Your task to perform on an android device: Open calendar and show me the fourth week of next month Image 0: 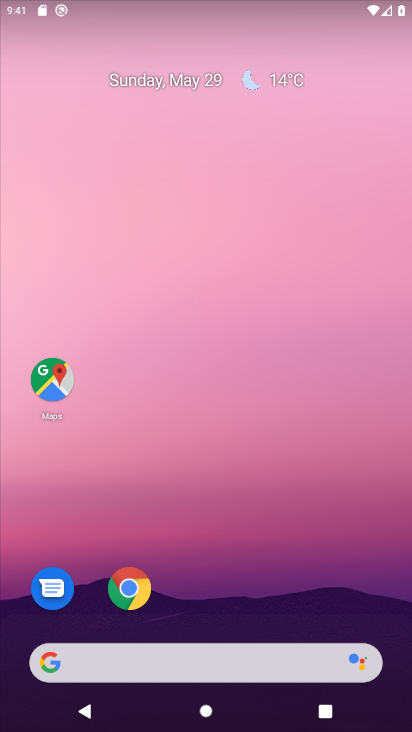
Step 0: drag from (152, 410) to (103, 100)
Your task to perform on an android device: Open calendar and show me the fourth week of next month Image 1: 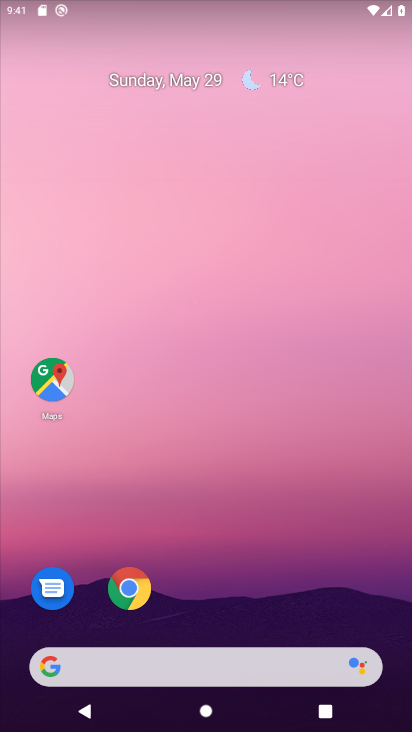
Step 1: drag from (251, 571) to (210, 103)
Your task to perform on an android device: Open calendar and show me the fourth week of next month Image 2: 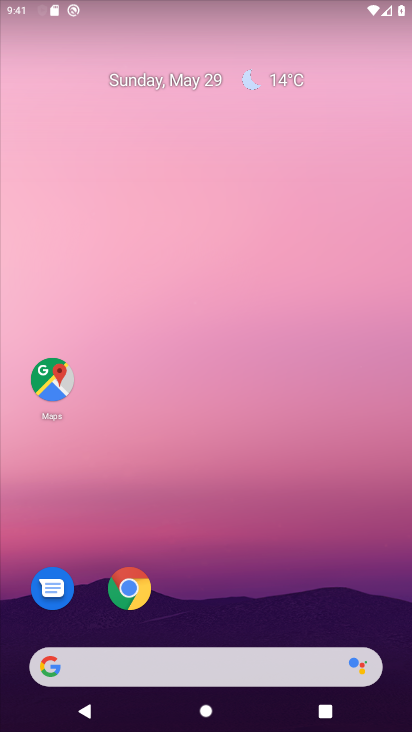
Step 2: drag from (270, 697) to (252, 118)
Your task to perform on an android device: Open calendar and show me the fourth week of next month Image 3: 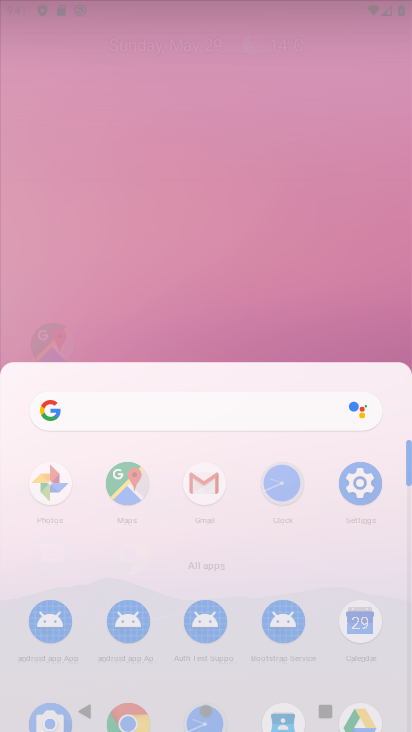
Step 3: drag from (212, 324) to (185, 147)
Your task to perform on an android device: Open calendar and show me the fourth week of next month Image 4: 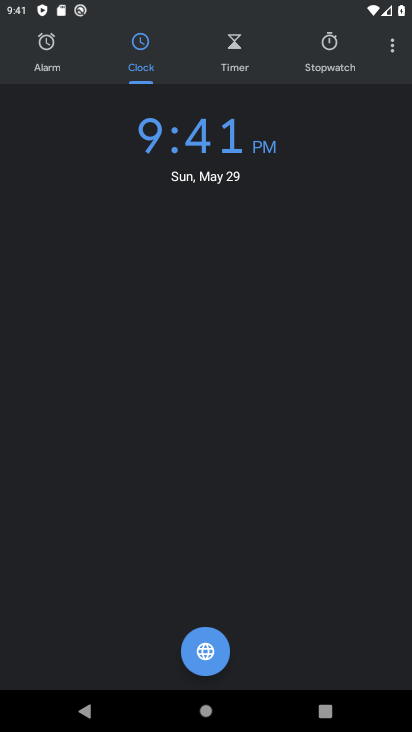
Step 4: press back button
Your task to perform on an android device: Open calendar and show me the fourth week of next month Image 5: 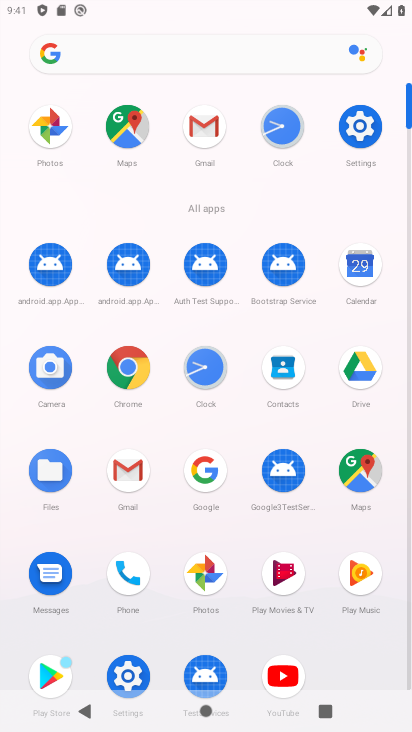
Step 5: click (357, 266)
Your task to perform on an android device: Open calendar and show me the fourth week of next month Image 6: 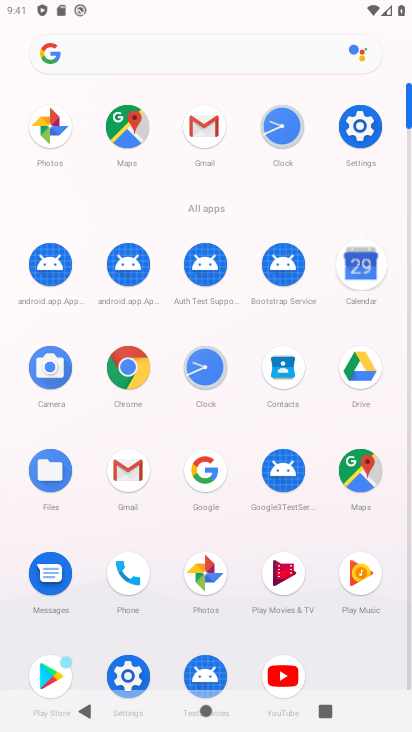
Step 6: click (355, 264)
Your task to perform on an android device: Open calendar and show me the fourth week of next month Image 7: 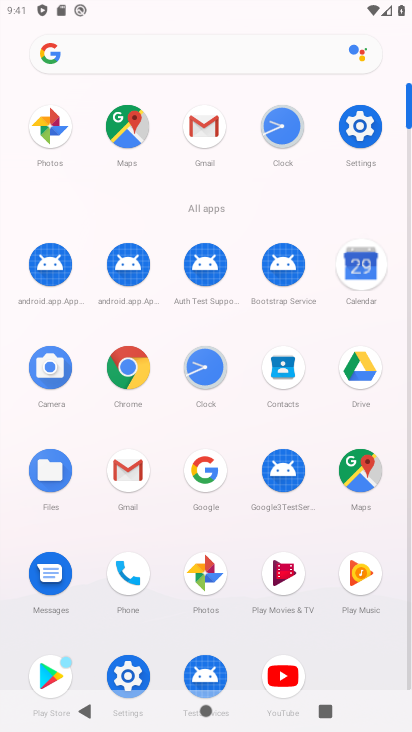
Step 7: click (342, 261)
Your task to perform on an android device: Open calendar and show me the fourth week of next month Image 8: 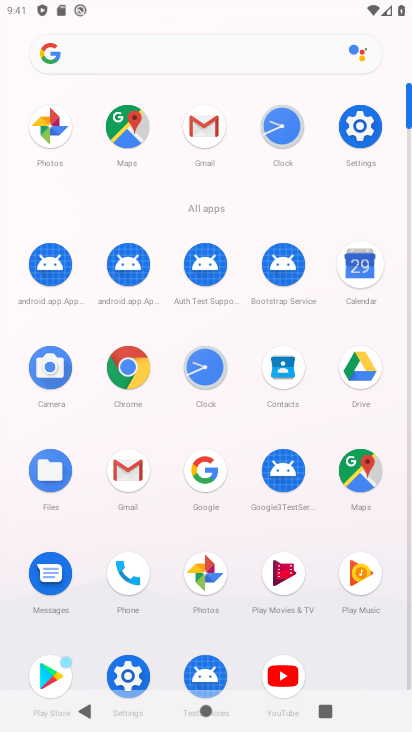
Step 8: click (354, 260)
Your task to perform on an android device: Open calendar and show me the fourth week of next month Image 9: 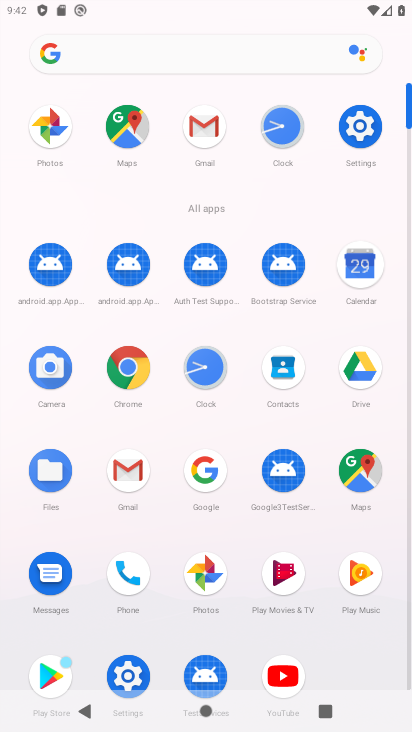
Step 9: click (354, 268)
Your task to perform on an android device: Open calendar and show me the fourth week of next month Image 10: 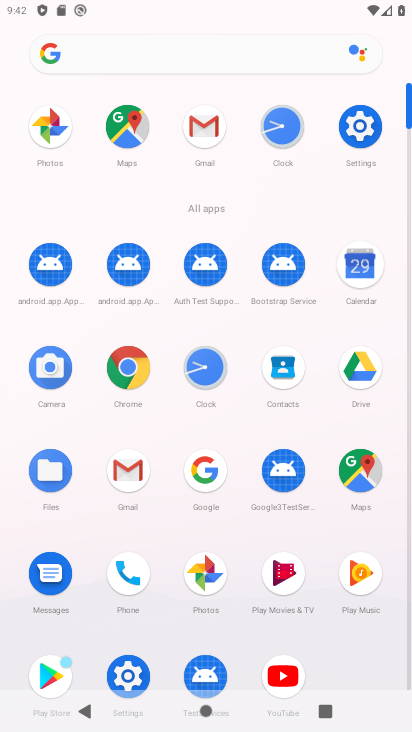
Step 10: click (354, 268)
Your task to perform on an android device: Open calendar and show me the fourth week of next month Image 11: 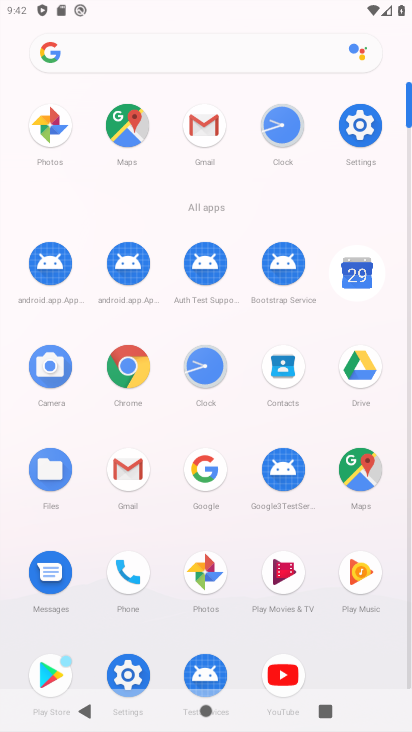
Step 11: click (355, 268)
Your task to perform on an android device: Open calendar and show me the fourth week of next month Image 12: 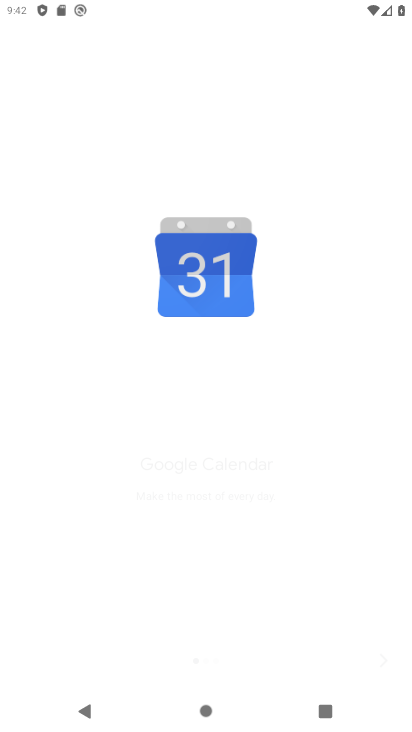
Step 12: click (355, 271)
Your task to perform on an android device: Open calendar and show me the fourth week of next month Image 13: 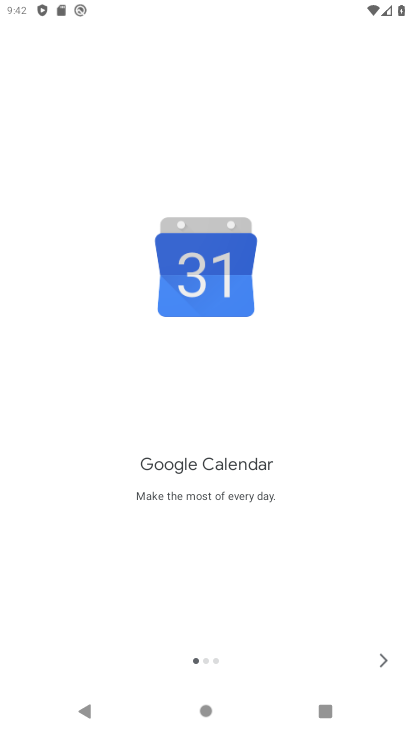
Step 13: click (388, 663)
Your task to perform on an android device: Open calendar and show me the fourth week of next month Image 14: 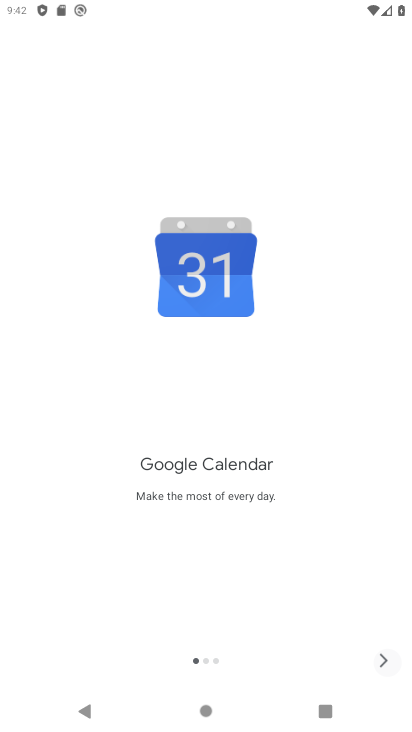
Step 14: click (387, 661)
Your task to perform on an android device: Open calendar and show me the fourth week of next month Image 15: 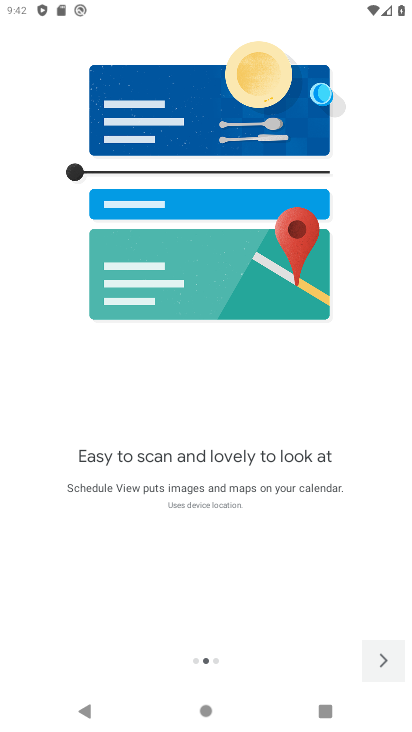
Step 15: click (386, 660)
Your task to perform on an android device: Open calendar and show me the fourth week of next month Image 16: 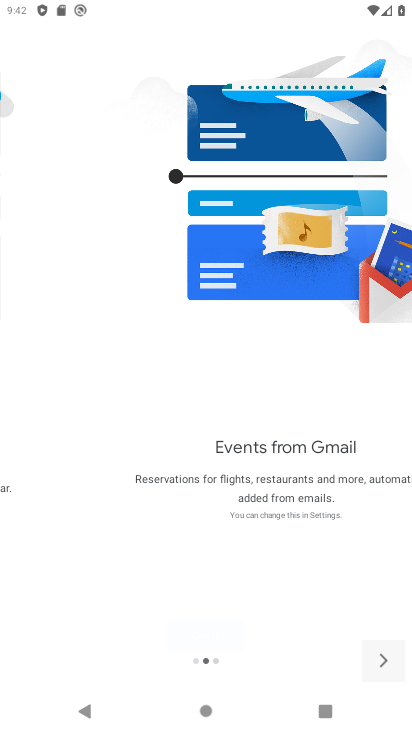
Step 16: click (385, 659)
Your task to perform on an android device: Open calendar and show me the fourth week of next month Image 17: 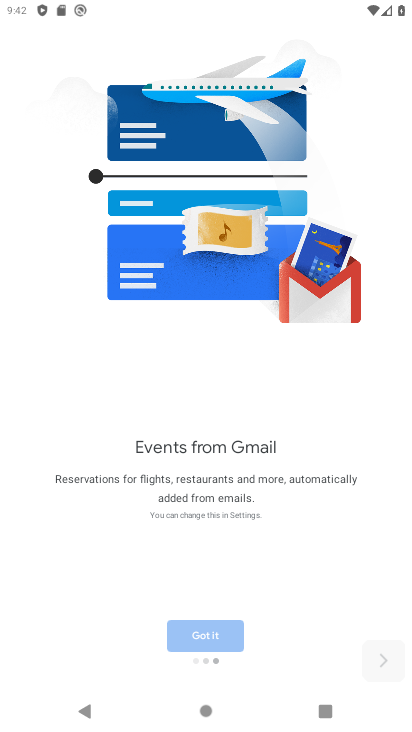
Step 17: click (381, 658)
Your task to perform on an android device: Open calendar and show me the fourth week of next month Image 18: 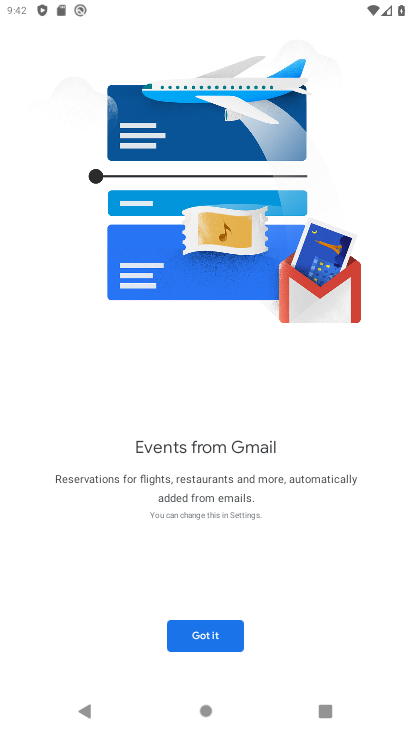
Step 18: click (374, 658)
Your task to perform on an android device: Open calendar and show me the fourth week of next month Image 19: 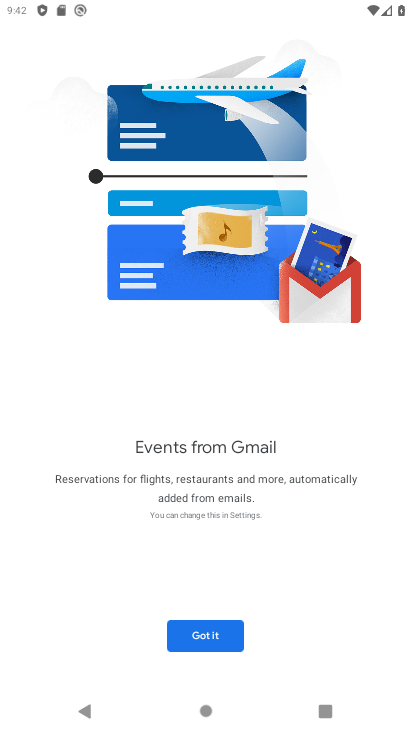
Step 19: click (210, 649)
Your task to perform on an android device: Open calendar and show me the fourth week of next month Image 20: 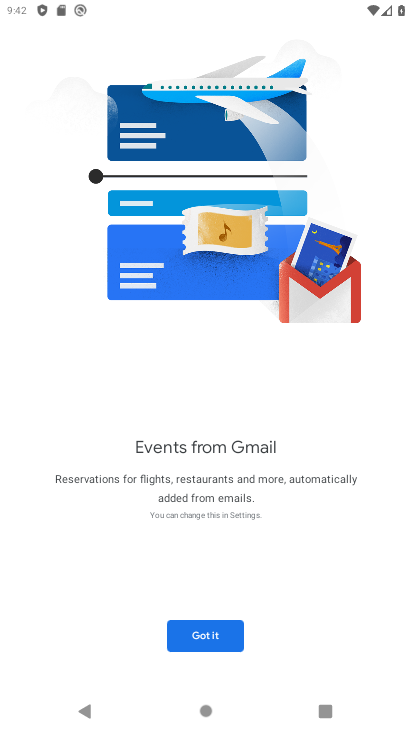
Step 20: click (210, 646)
Your task to perform on an android device: Open calendar and show me the fourth week of next month Image 21: 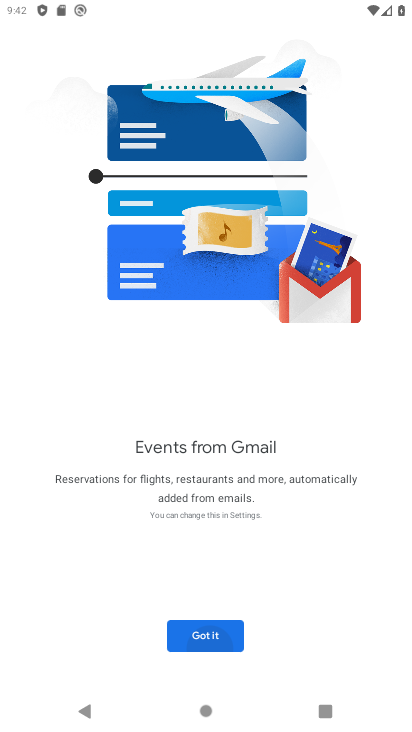
Step 21: click (212, 644)
Your task to perform on an android device: Open calendar and show me the fourth week of next month Image 22: 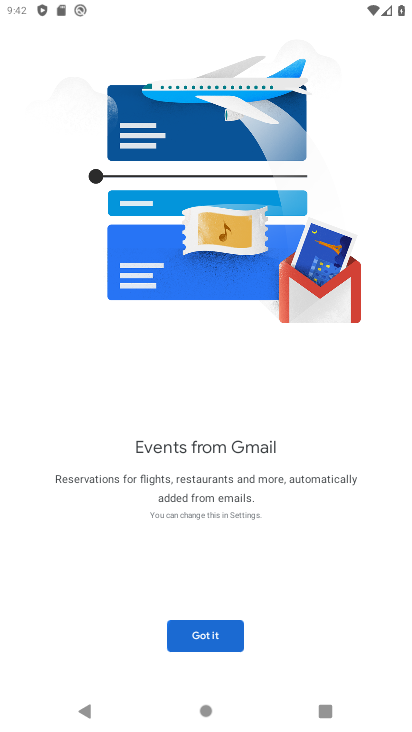
Step 22: click (214, 642)
Your task to perform on an android device: Open calendar and show me the fourth week of next month Image 23: 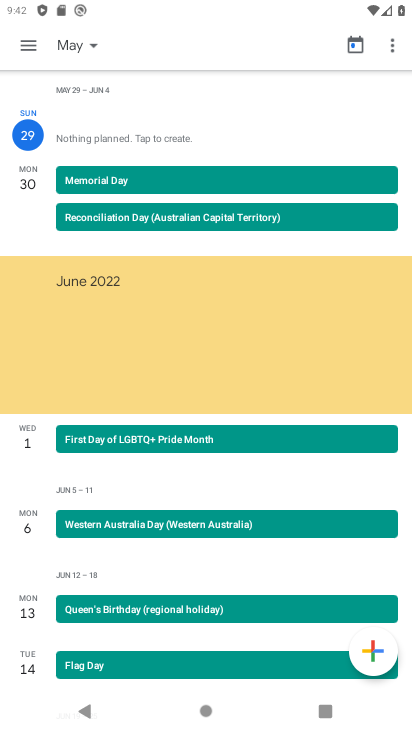
Step 23: click (102, 47)
Your task to perform on an android device: Open calendar and show me the fourth week of next month Image 24: 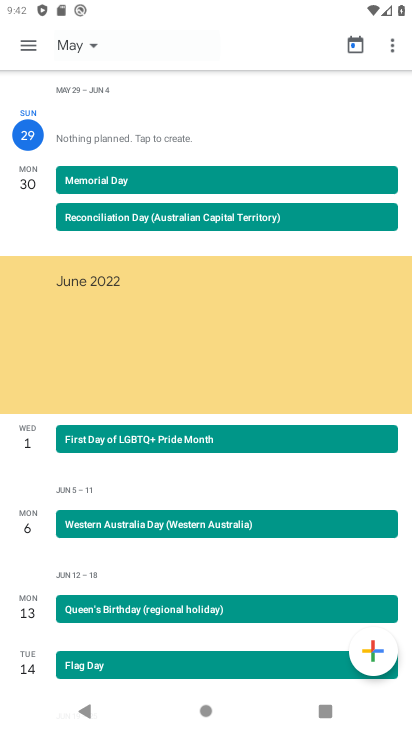
Step 24: click (102, 47)
Your task to perform on an android device: Open calendar and show me the fourth week of next month Image 25: 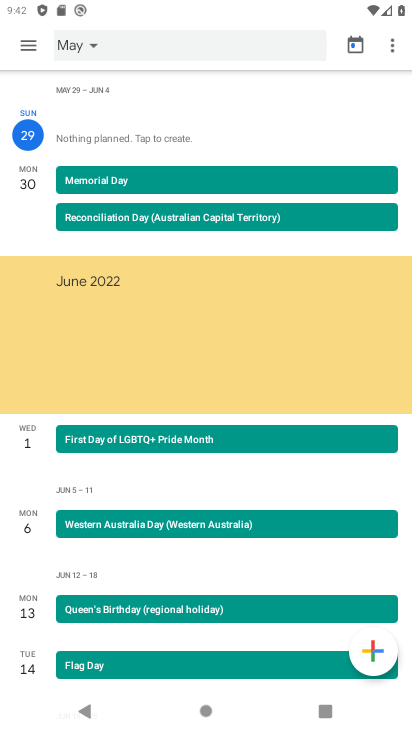
Step 25: click (102, 47)
Your task to perform on an android device: Open calendar and show me the fourth week of next month Image 26: 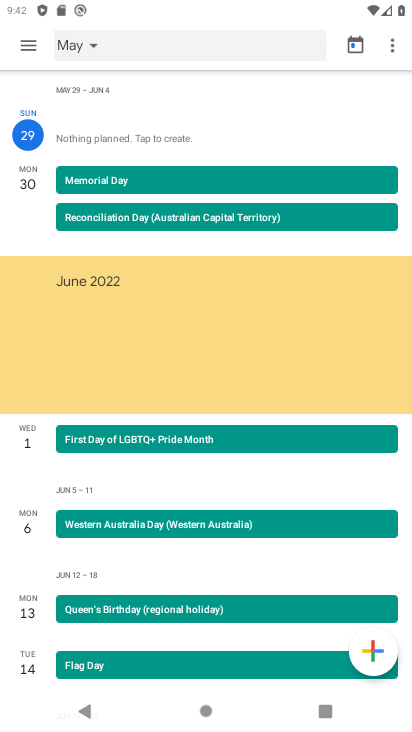
Step 26: click (102, 47)
Your task to perform on an android device: Open calendar and show me the fourth week of next month Image 27: 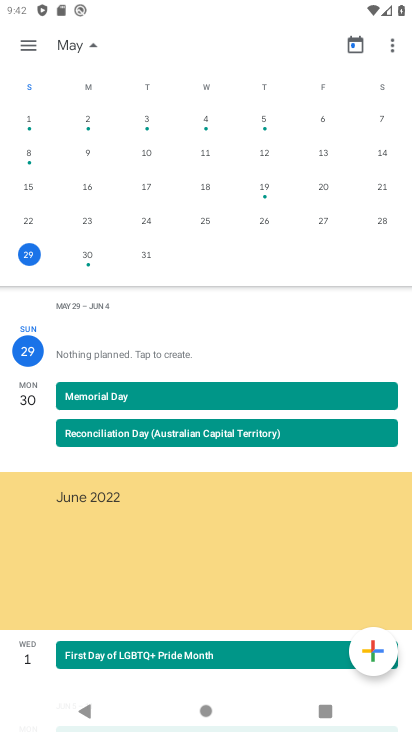
Step 27: click (102, 46)
Your task to perform on an android device: Open calendar and show me the fourth week of next month Image 28: 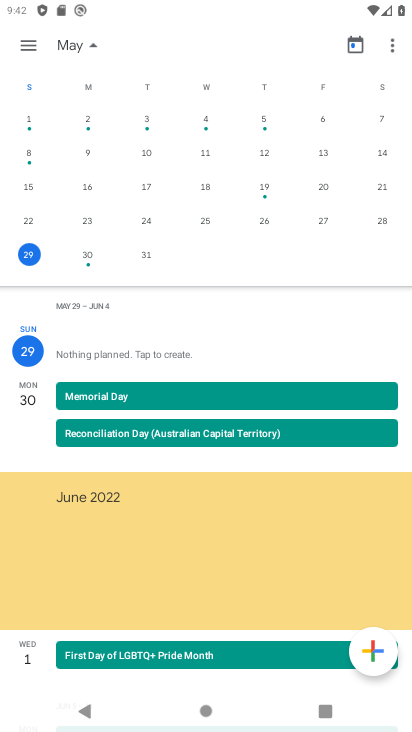
Step 28: drag from (188, 187) to (21, 198)
Your task to perform on an android device: Open calendar and show me the fourth week of next month Image 29: 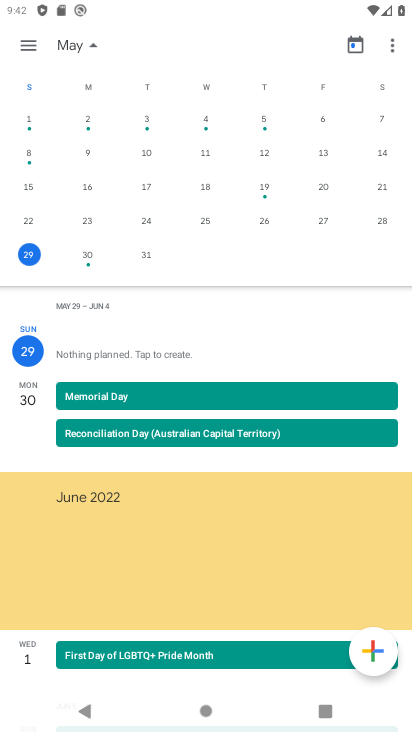
Step 29: click (12, 230)
Your task to perform on an android device: Open calendar and show me the fourth week of next month Image 30: 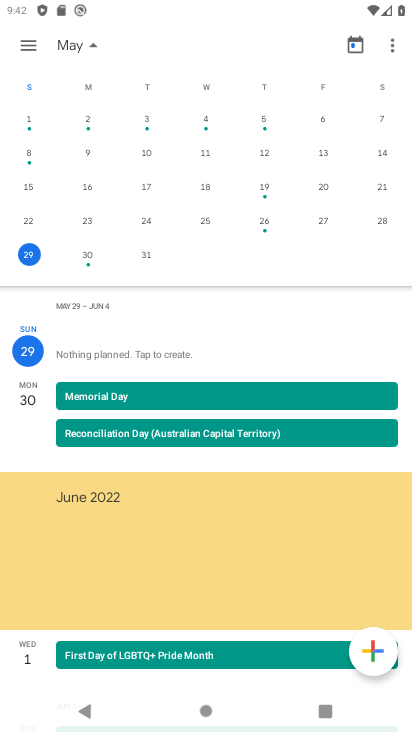
Step 30: drag from (100, 246) to (41, 181)
Your task to perform on an android device: Open calendar and show me the fourth week of next month Image 31: 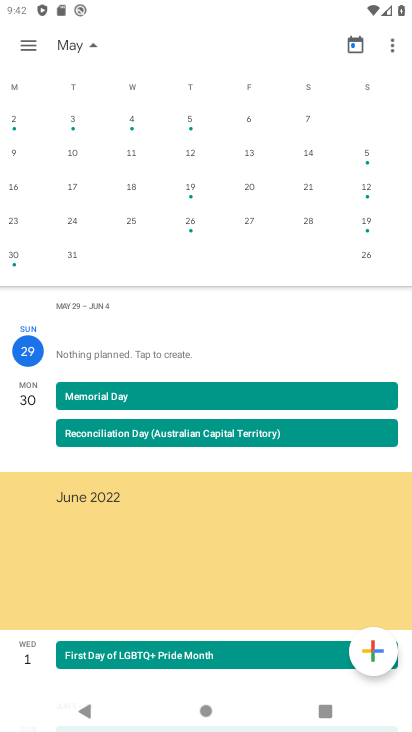
Step 31: drag from (126, 159) to (5, 152)
Your task to perform on an android device: Open calendar and show me the fourth week of next month Image 32: 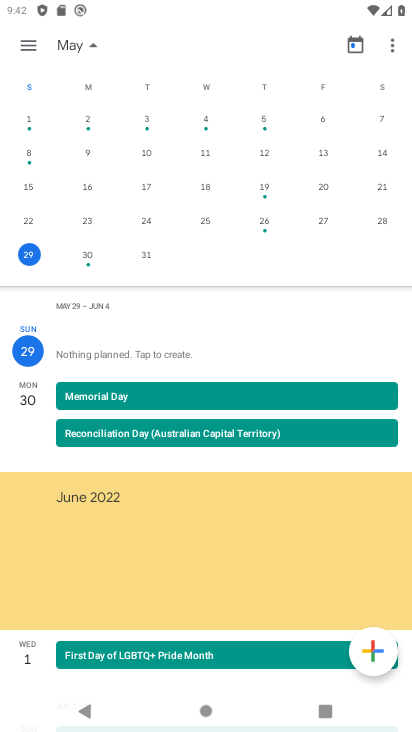
Step 32: drag from (64, 191) to (7, 184)
Your task to perform on an android device: Open calendar and show me the fourth week of next month Image 33: 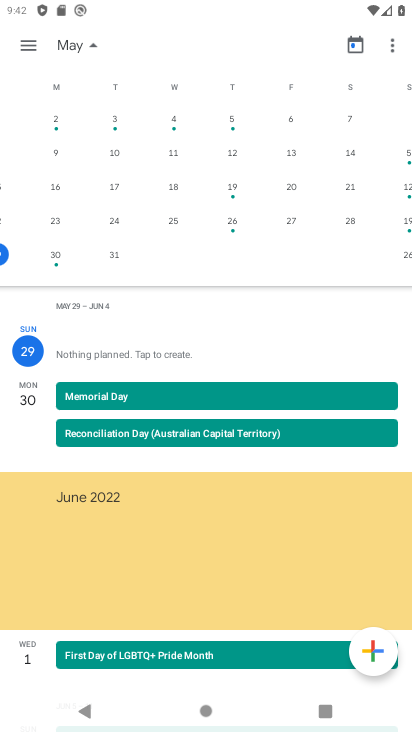
Step 33: drag from (166, 153) to (19, 142)
Your task to perform on an android device: Open calendar and show me the fourth week of next month Image 34: 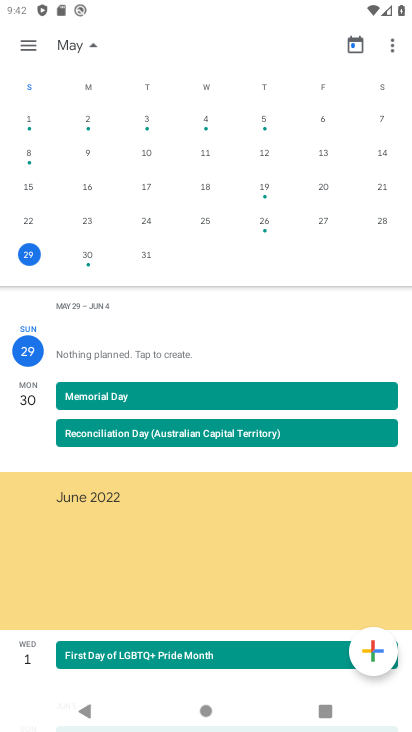
Step 34: click (221, 194)
Your task to perform on an android device: Open calendar and show me the fourth week of next month Image 35: 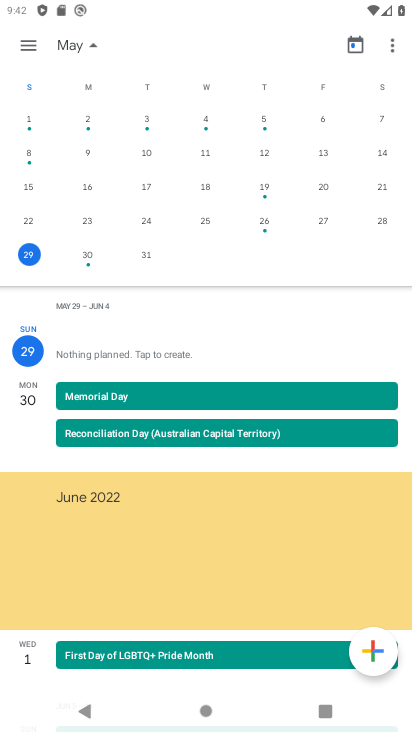
Step 35: drag from (312, 175) to (7, 155)
Your task to perform on an android device: Open calendar and show me the fourth week of next month Image 36: 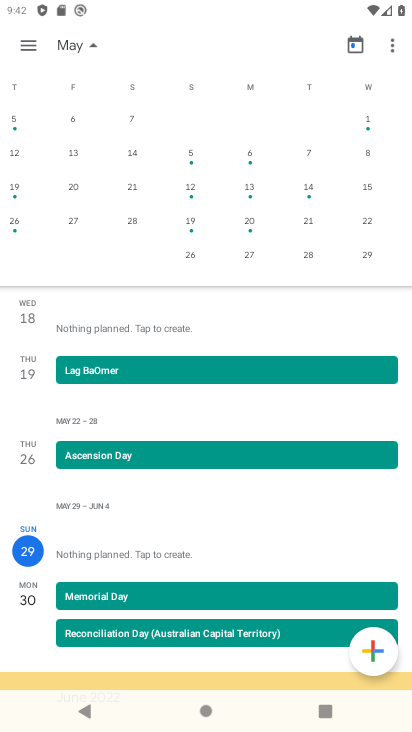
Step 36: drag from (172, 144) to (31, 270)
Your task to perform on an android device: Open calendar and show me the fourth week of next month Image 37: 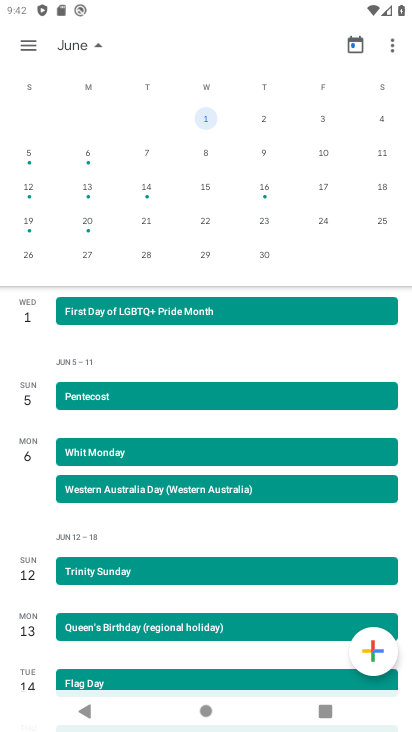
Step 37: drag from (198, 221) to (34, 273)
Your task to perform on an android device: Open calendar and show me the fourth week of next month Image 38: 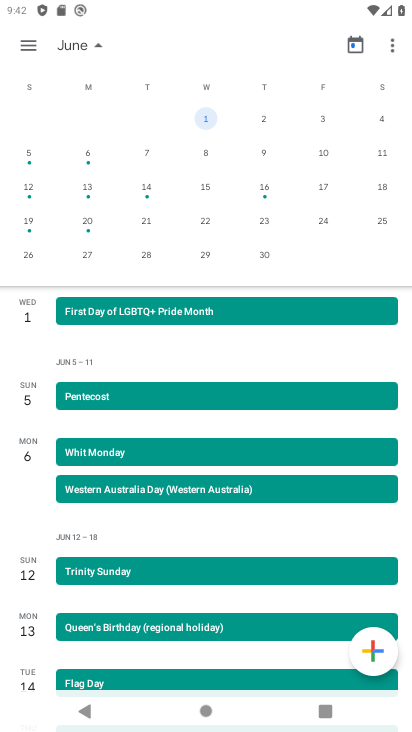
Step 38: drag from (294, 210) to (25, 257)
Your task to perform on an android device: Open calendar and show me the fourth week of next month Image 39: 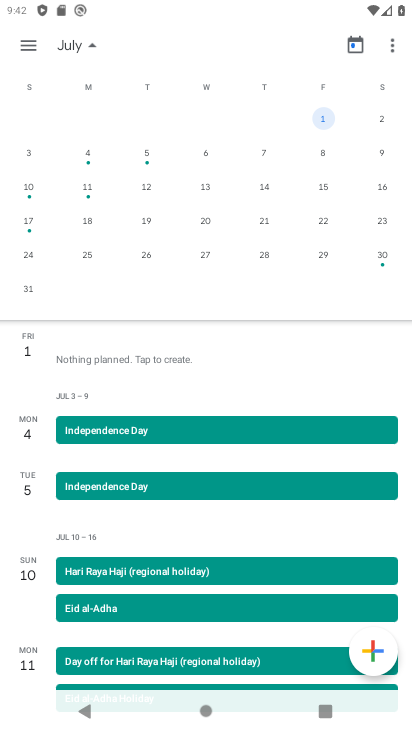
Step 39: drag from (105, 180) to (400, 253)
Your task to perform on an android device: Open calendar and show me the fourth week of next month Image 40: 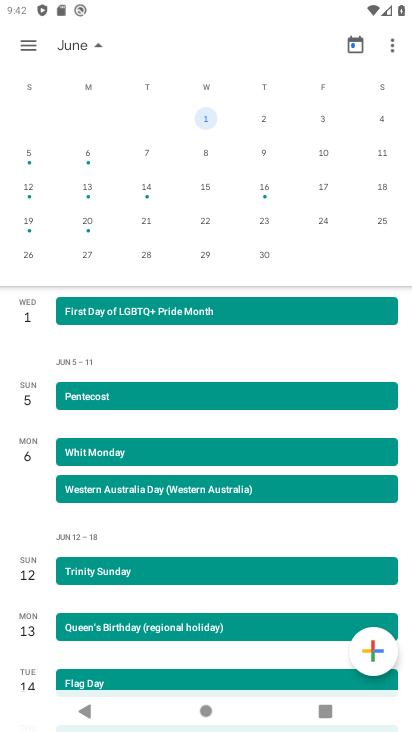
Step 40: click (204, 216)
Your task to perform on an android device: Open calendar and show me the fourth week of next month Image 41: 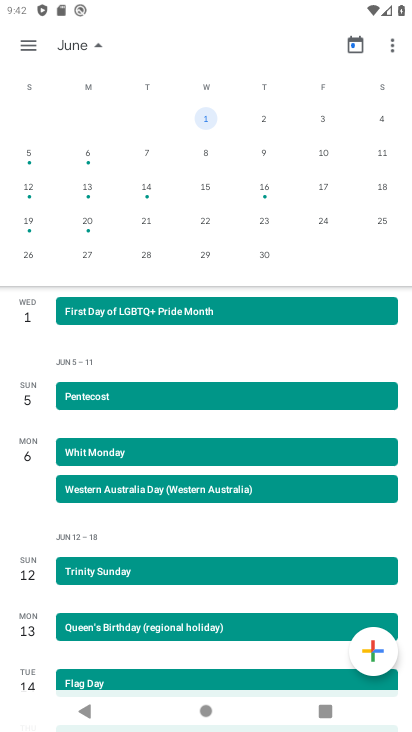
Step 41: click (204, 216)
Your task to perform on an android device: Open calendar and show me the fourth week of next month Image 42: 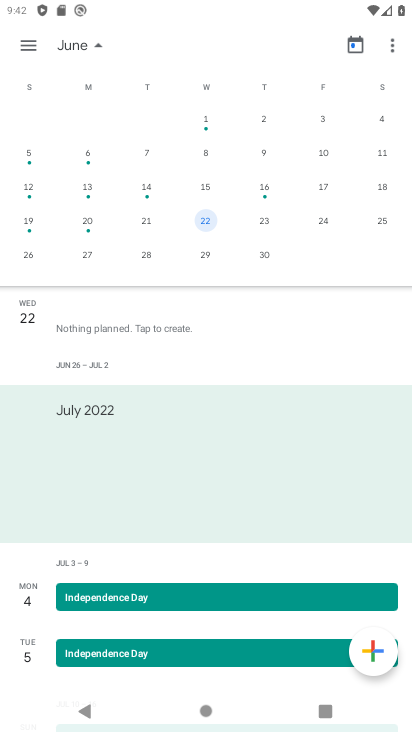
Step 42: click (208, 215)
Your task to perform on an android device: Open calendar and show me the fourth week of next month Image 43: 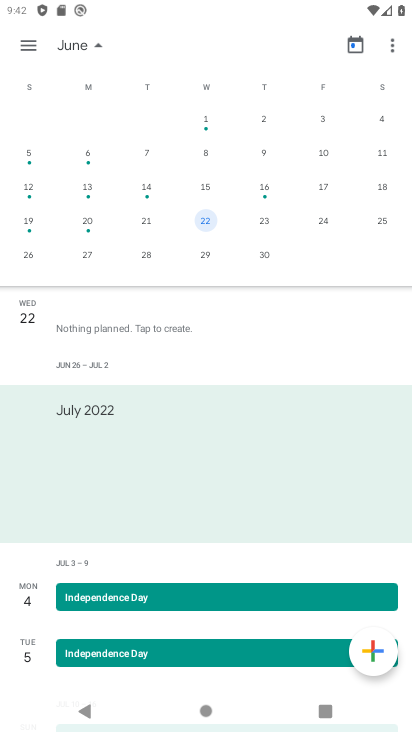
Step 43: task complete